Your task to perform on an android device: turn on improve location accuracy Image 0: 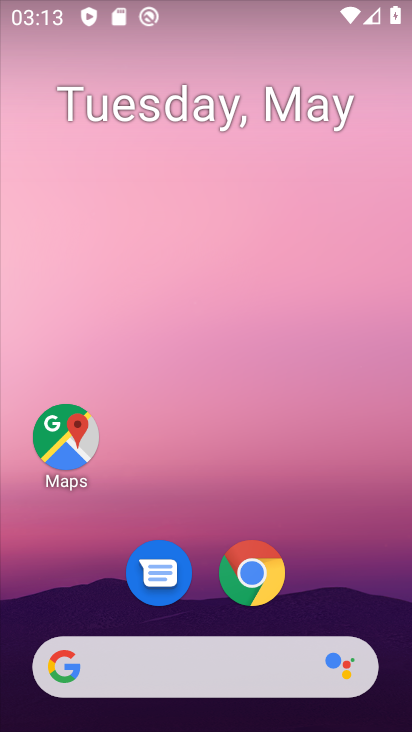
Step 0: drag from (108, 561) to (214, 112)
Your task to perform on an android device: turn on improve location accuracy Image 1: 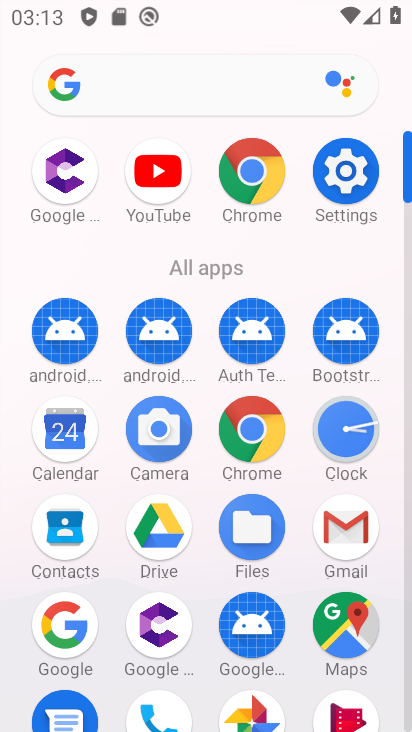
Step 1: click (344, 171)
Your task to perform on an android device: turn on improve location accuracy Image 2: 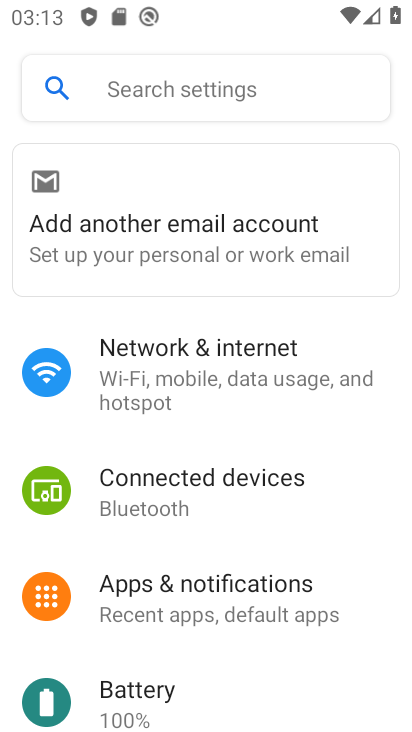
Step 2: drag from (111, 630) to (279, 106)
Your task to perform on an android device: turn on improve location accuracy Image 3: 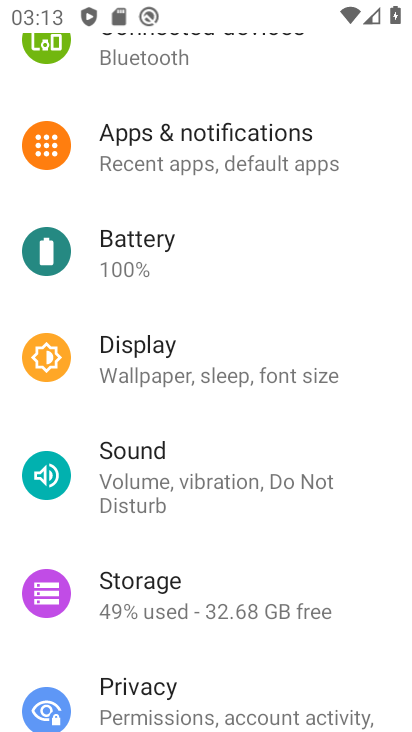
Step 3: drag from (190, 659) to (294, 141)
Your task to perform on an android device: turn on improve location accuracy Image 4: 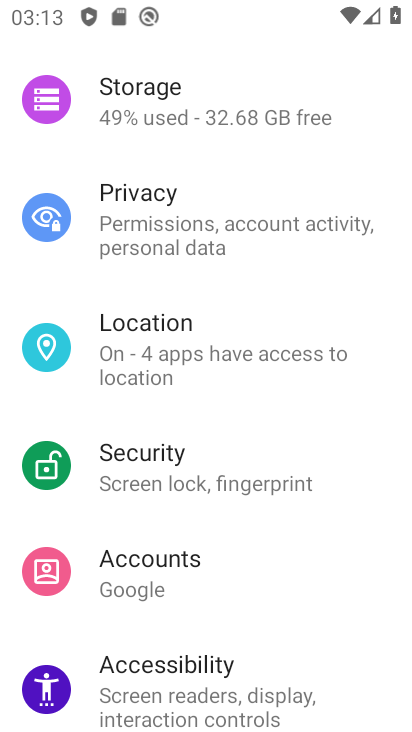
Step 4: click (180, 341)
Your task to perform on an android device: turn on improve location accuracy Image 5: 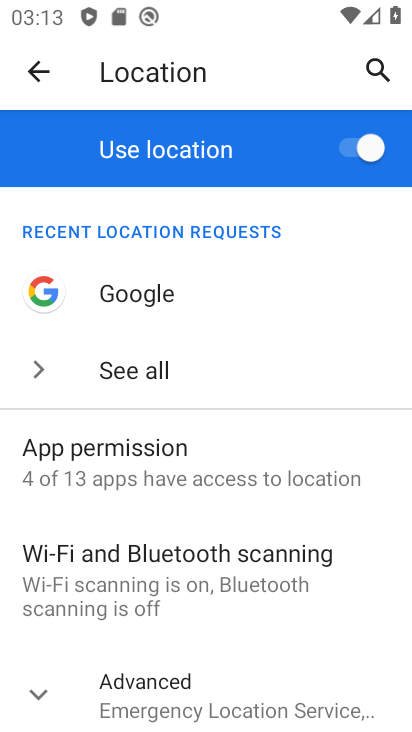
Step 5: click (226, 695)
Your task to perform on an android device: turn on improve location accuracy Image 6: 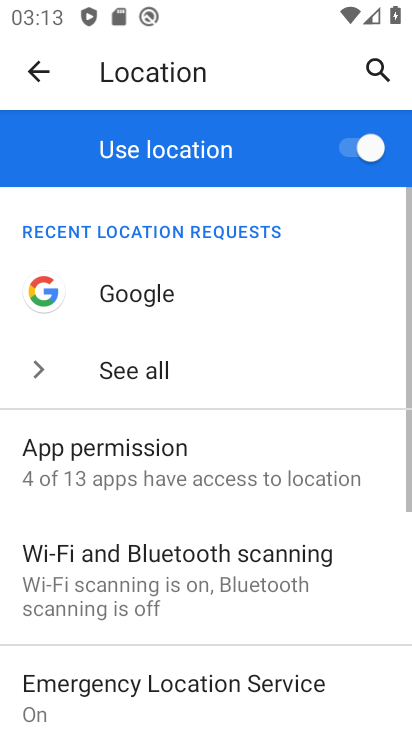
Step 6: drag from (219, 692) to (286, 236)
Your task to perform on an android device: turn on improve location accuracy Image 7: 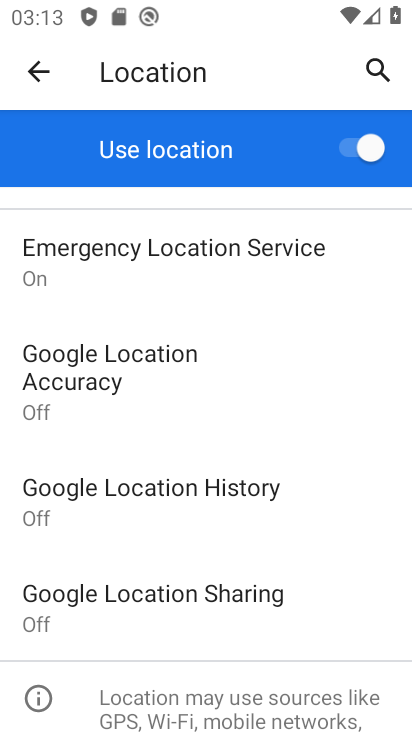
Step 7: click (113, 383)
Your task to perform on an android device: turn on improve location accuracy Image 8: 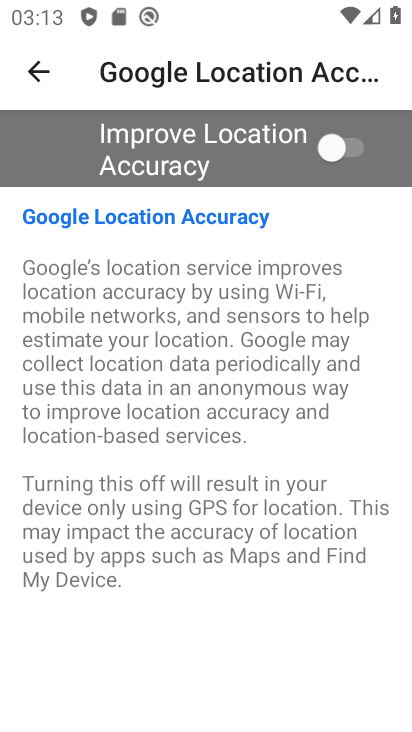
Step 8: click (337, 152)
Your task to perform on an android device: turn on improve location accuracy Image 9: 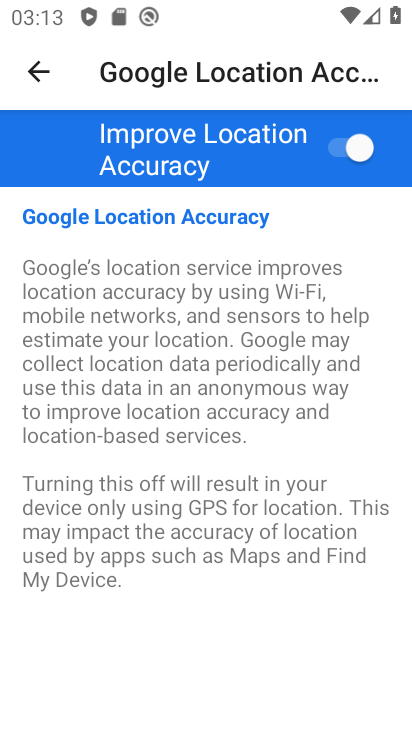
Step 9: task complete